Your task to perform on an android device: toggle airplane mode Image 0: 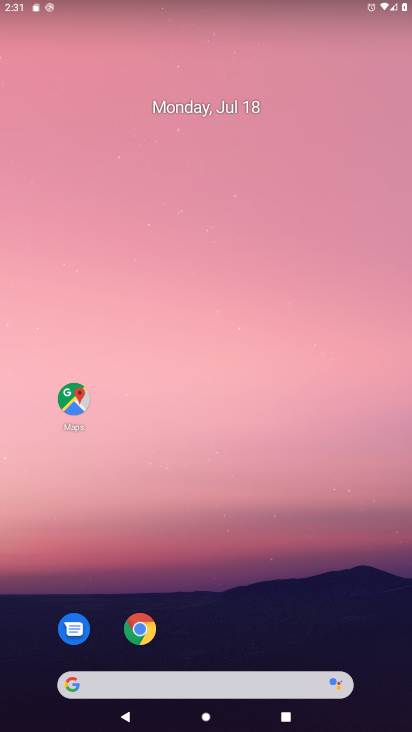
Step 0: drag from (170, 580) to (200, 98)
Your task to perform on an android device: toggle airplane mode Image 1: 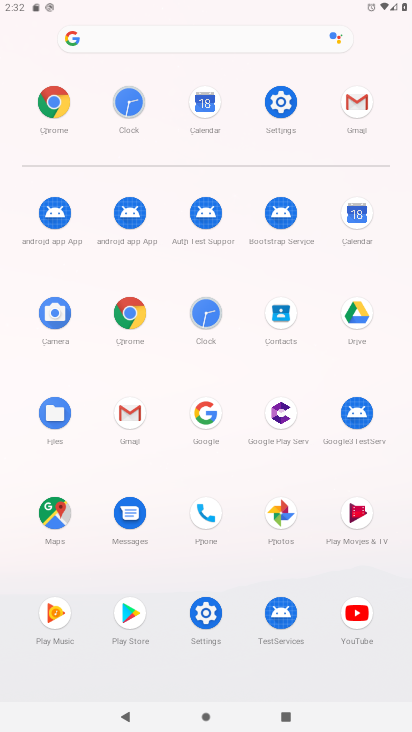
Step 1: click (279, 111)
Your task to perform on an android device: toggle airplane mode Image 2: 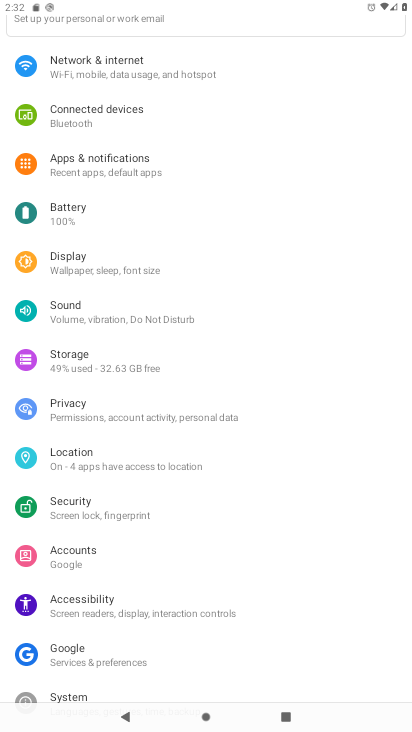
Step 2: click (195, 63)
Your task to perform on an android device: toggle airplane mode Image 3: 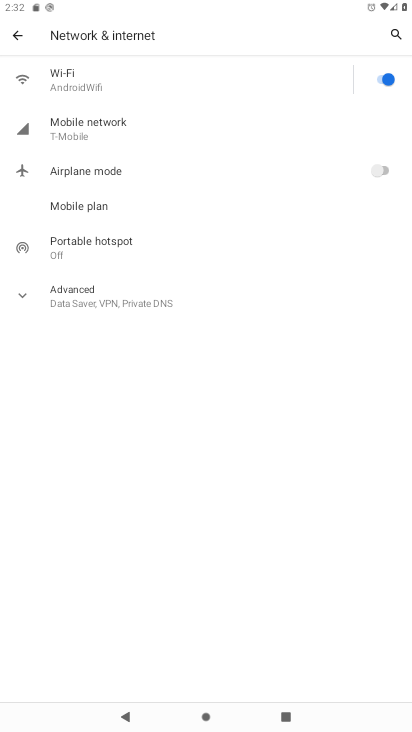
Step 3: click (384, 173)
Your task to perform on an android device: toggle airplane mode Image 4: 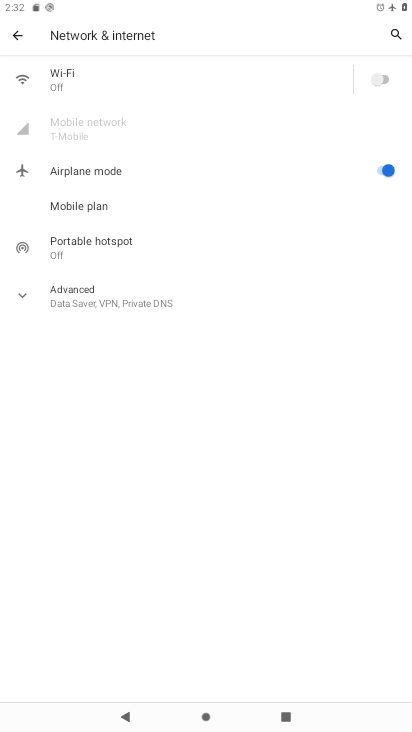
Step 4: task complete